Your task to perform on an android device: turn off priority inbox in the gmail app Image 0: 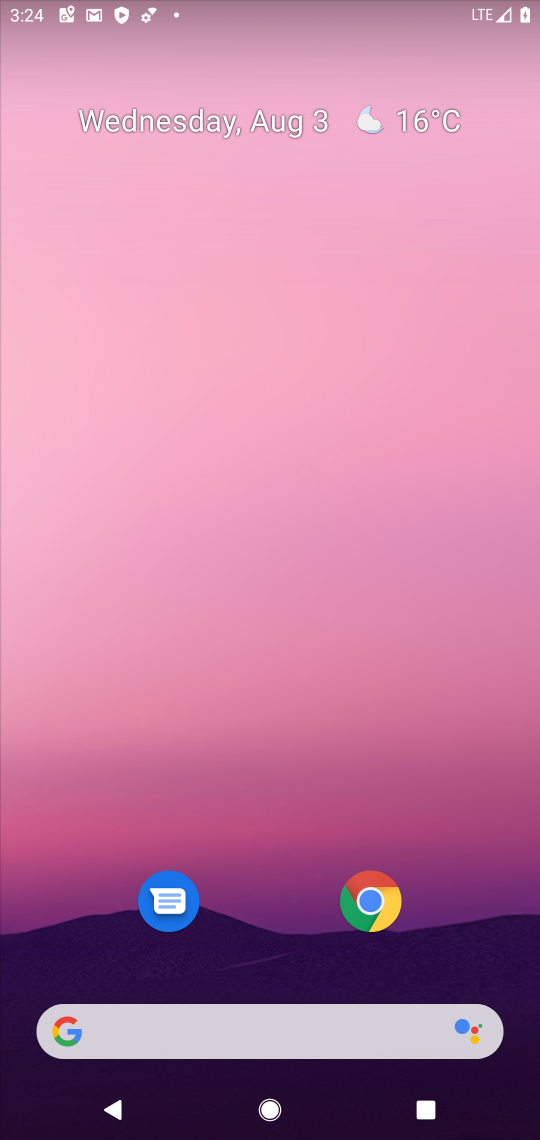
Step 0: drag from (305, 904) to (340, 96)
Your task to perform on an android device: turn off priority inbox in the gmail app Image 1: 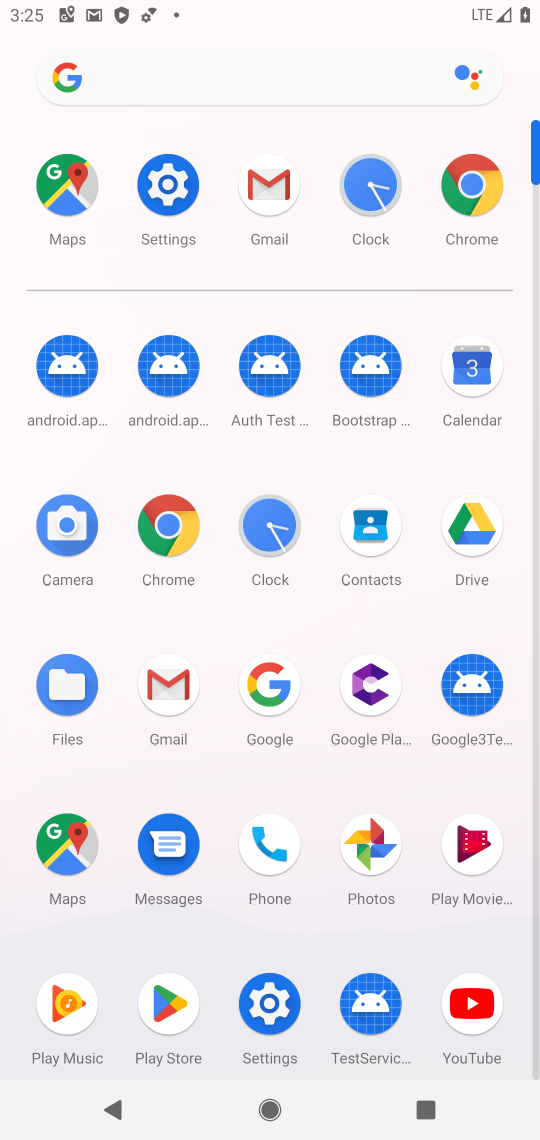
Step 1: click (158, 671)
Your task to perform on an android device: turn off priority inbox in the gmail app Image 2: 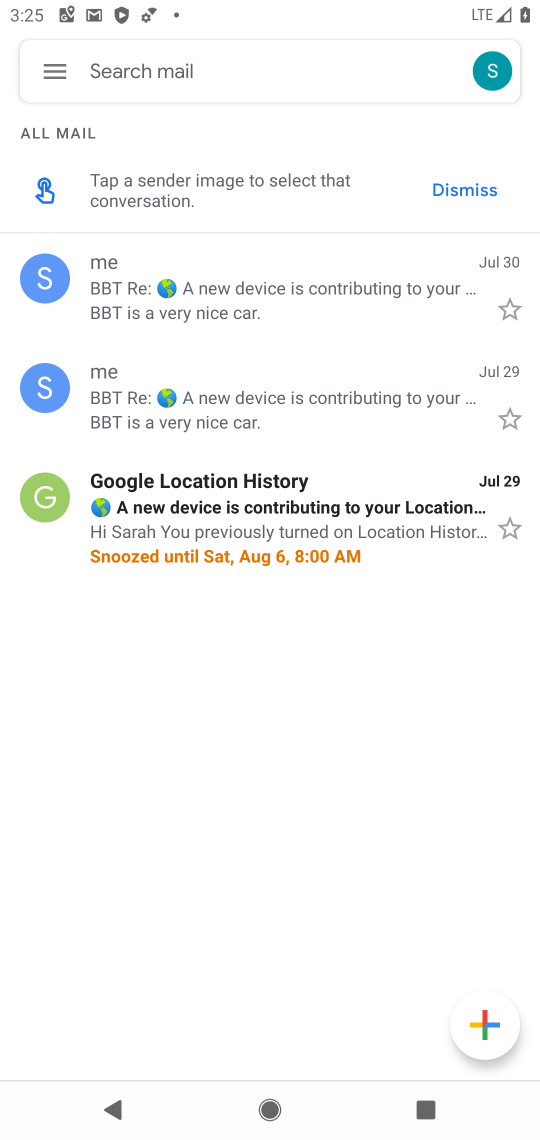
Step 2: click (41, 78)
Your task to perform on an android device: turn off priority inbox in the gmail app Image 3: 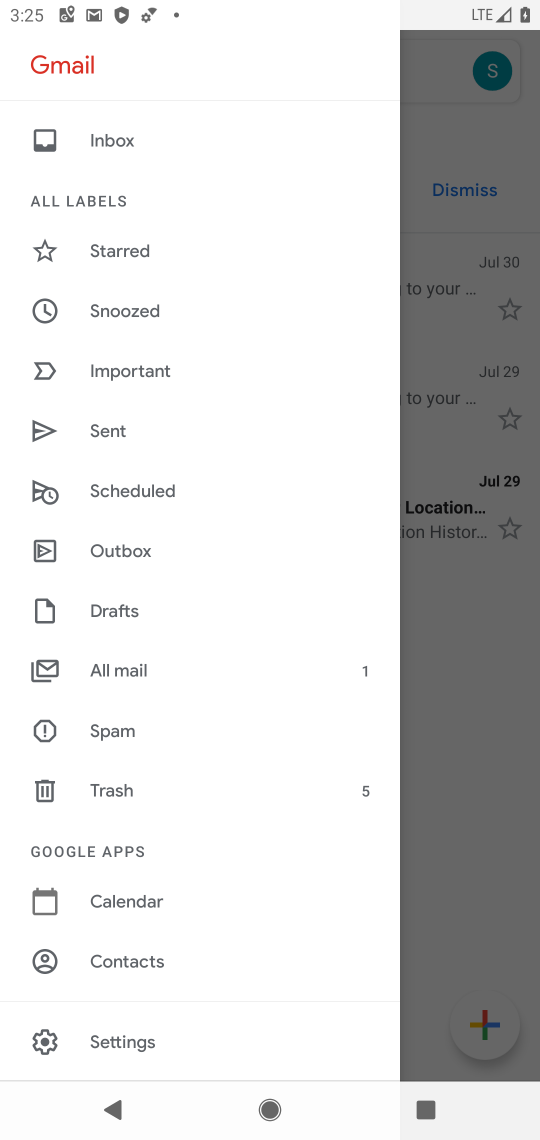
Step 3: click (111, 1038)
Your task to perform on an android device: turn off priority inbox in the gmail app Image 4: 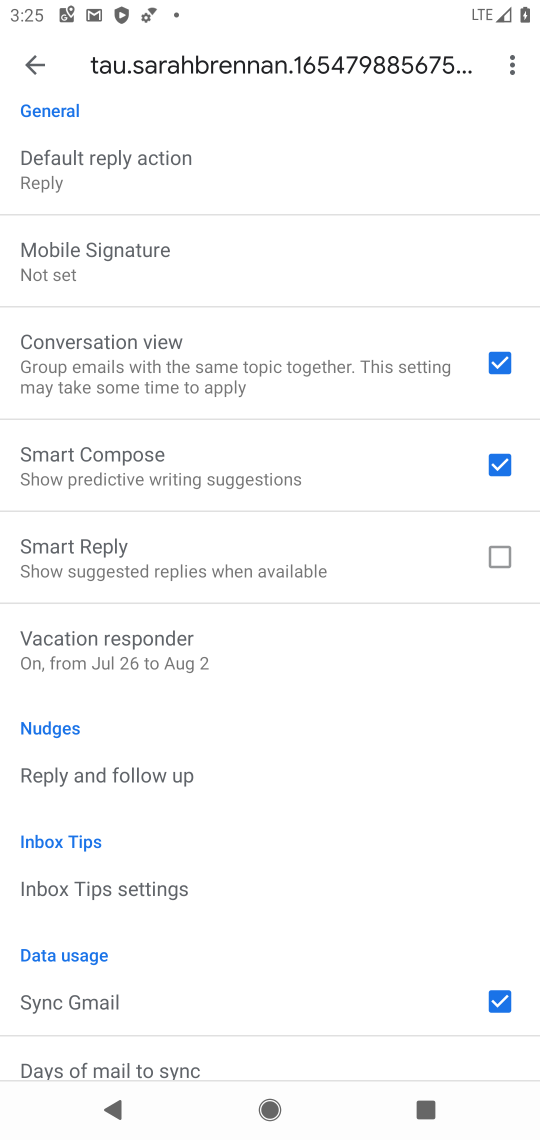
Step 4: drag from (133, 280) to (96, 815)
Your task to perform on an android device: turn off priority inbox in the gmail app Image 5: 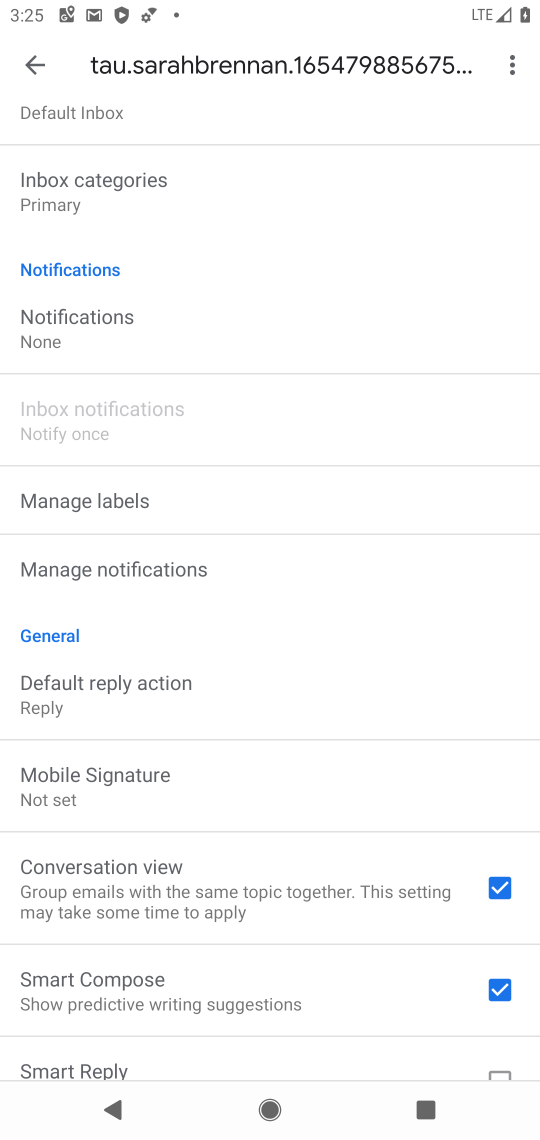
Step 5: click (81, 194)
Your task to perform on an android device: turn off priority inbox in the gmail app Image 6: 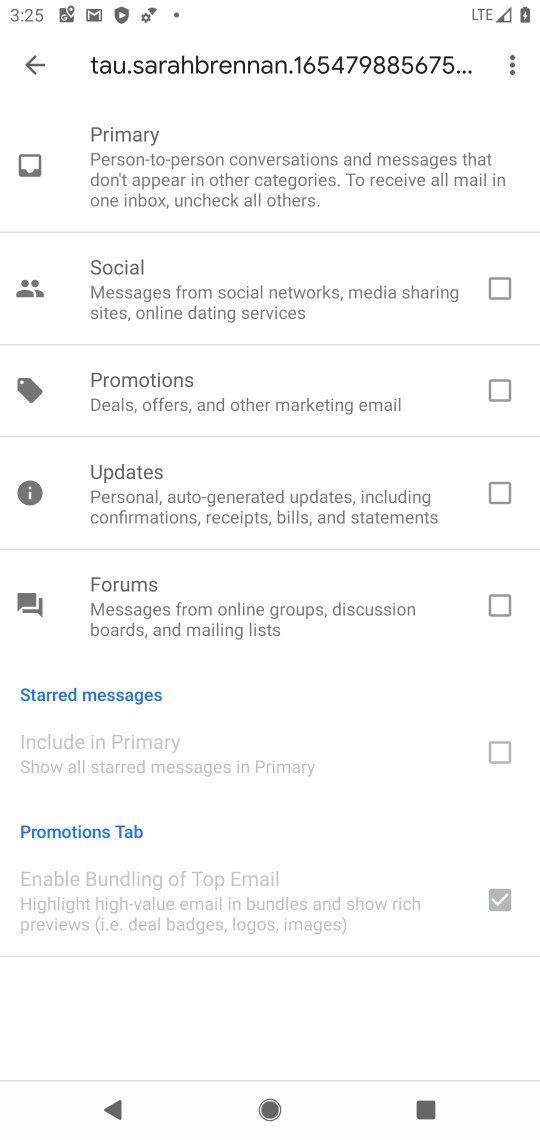
Step 6: click (54, 64)
Your task to perform on an android device: turn off priority inbox in the gmail app Image 7: 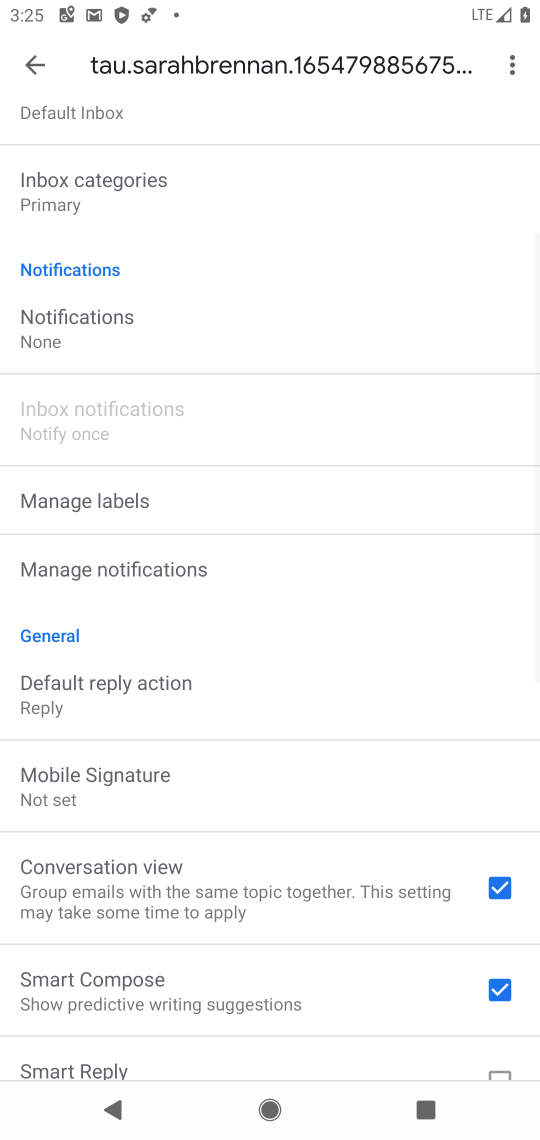
Step 7: click (116, 187)
Your task to perform on an android device: turn off priority inbox in the gmail app Image 8: 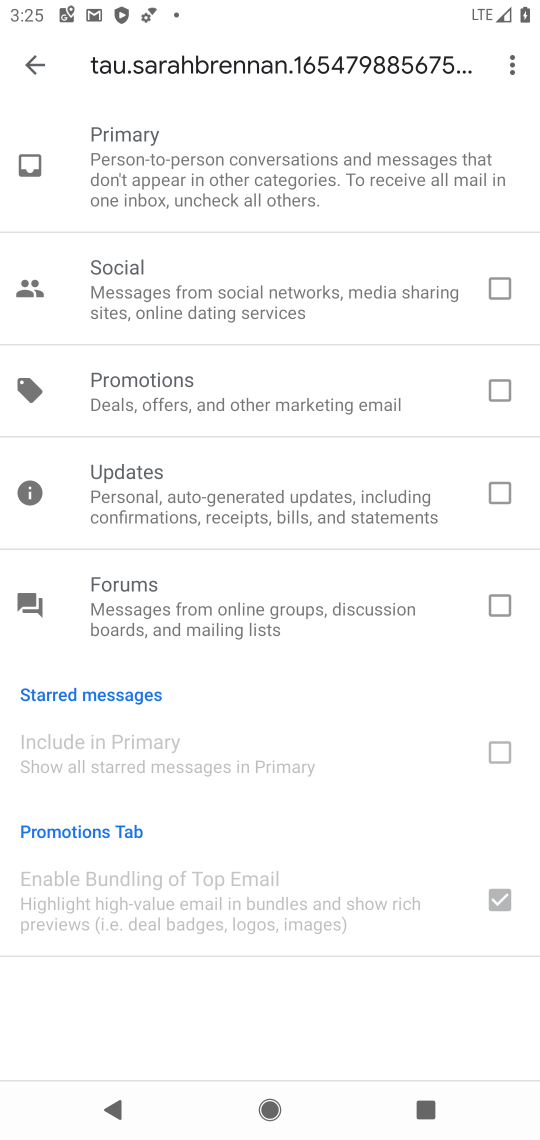
Step 8: click (59, 52)
Your task to perform on an android device: turn off priority inbox in the gmail app Image 9: 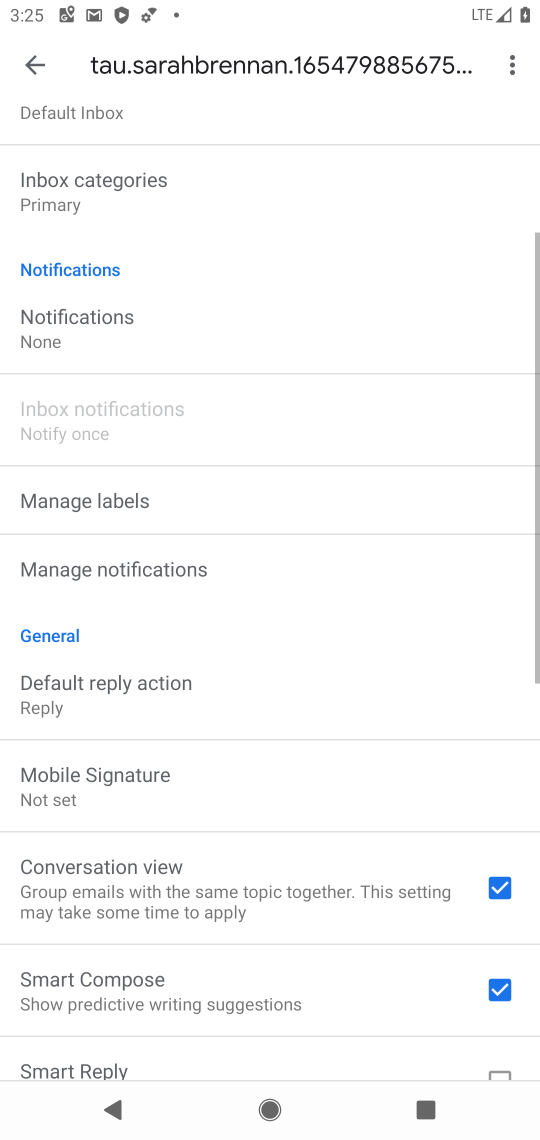
Step 9: click (59, 52)
Your task to perform on an android device: turn off priority inbox in the gmail app Image 10: 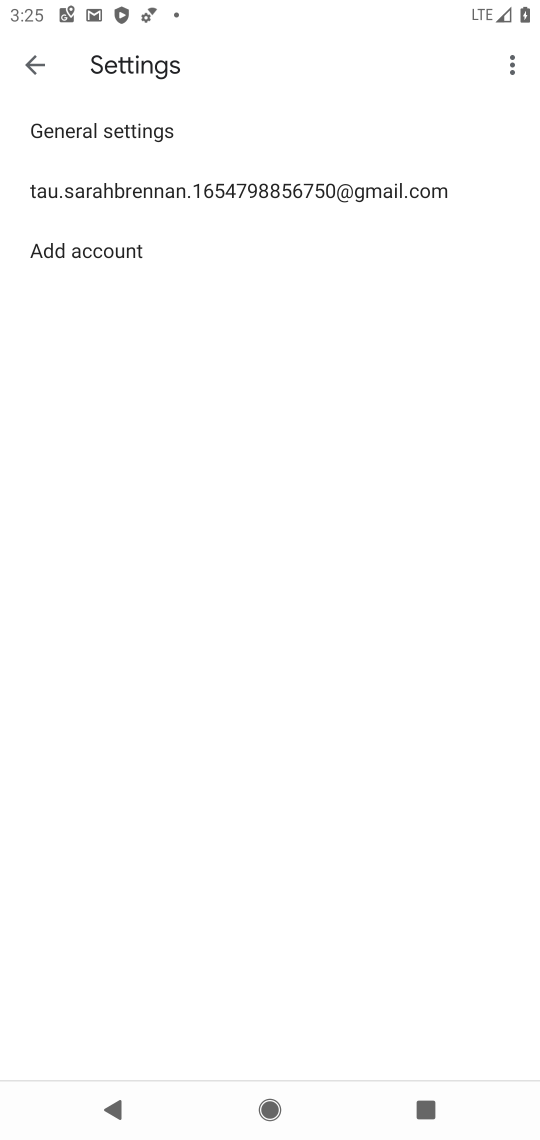
Step 10: click (71, 140)
Your task to perform on an android device: turn off priority inbox in the gmail app Image 11: 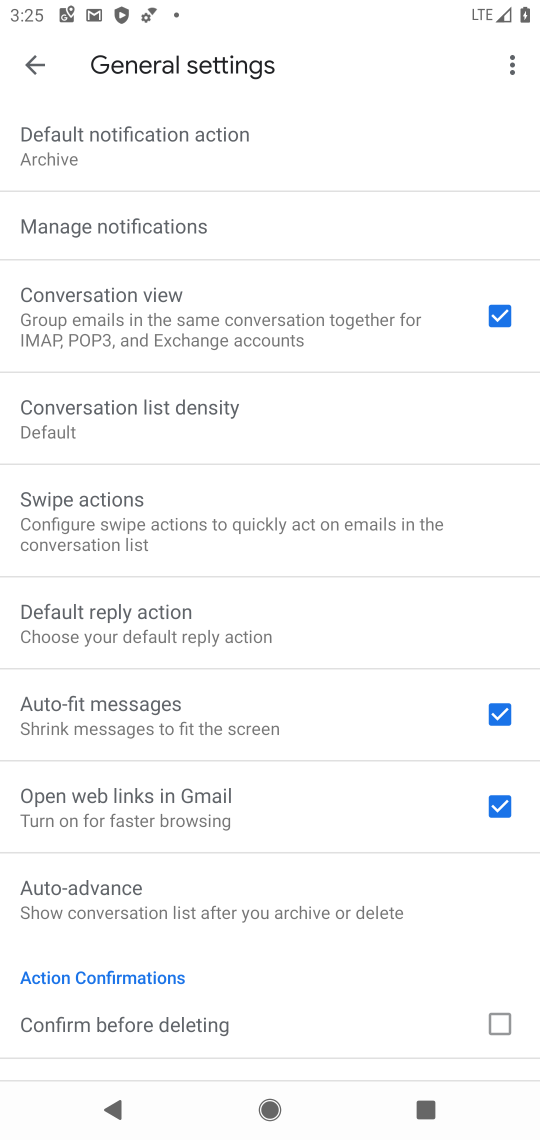
Step 11: click (50, 59)
Your task to perform on an android device: turn off priority inbox in the gmail app Image 12: 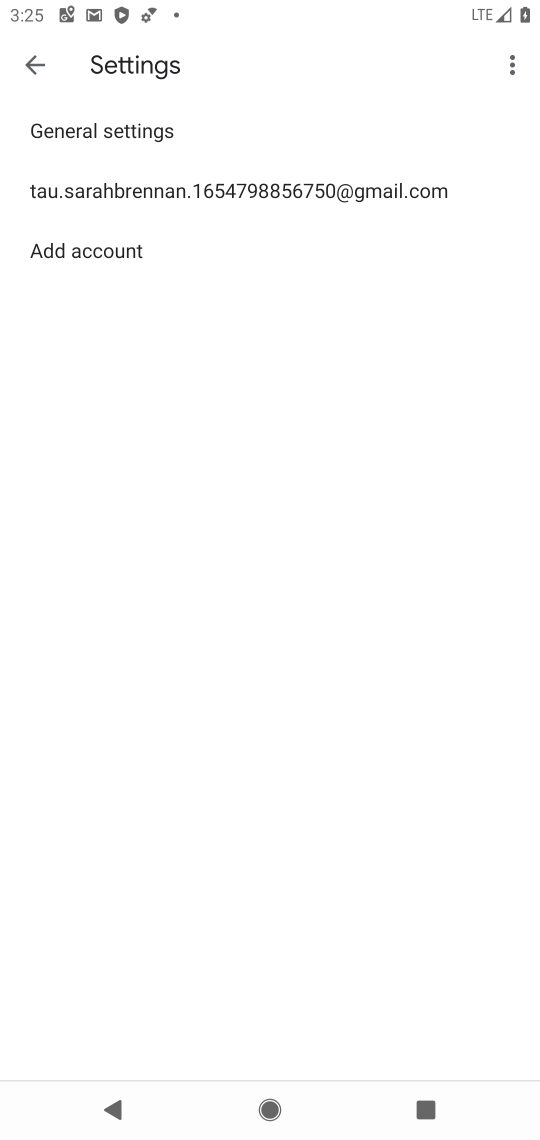
Step 12: click (142, 198)
Your task to perform on an android device: turn off priority inbox in the gmail app Image 13: 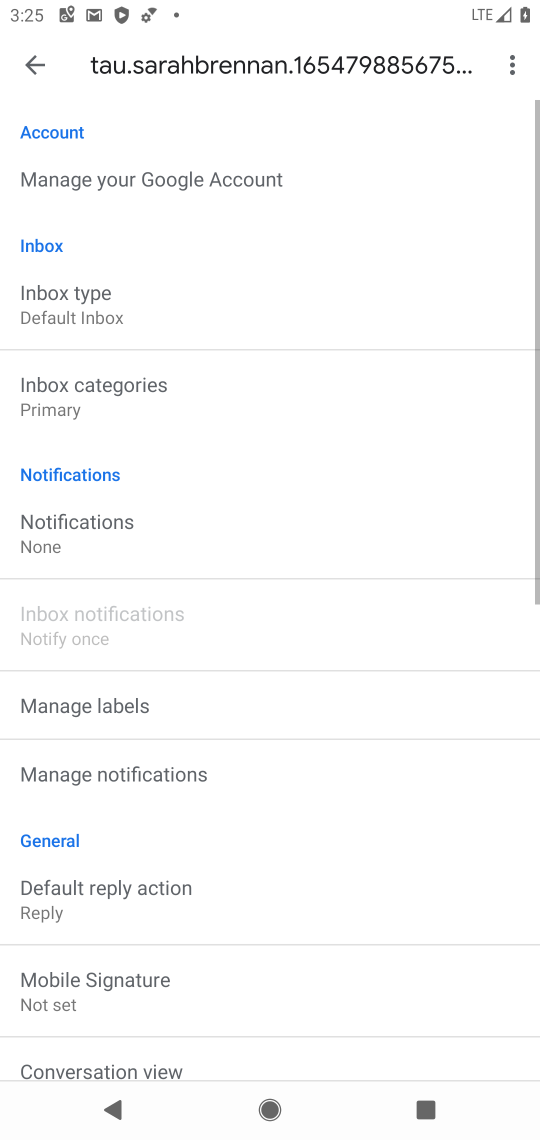
Step 13: click (122, 297)
Your task to perform on an android device: turn off priority inbox in the gmail app Image 14: 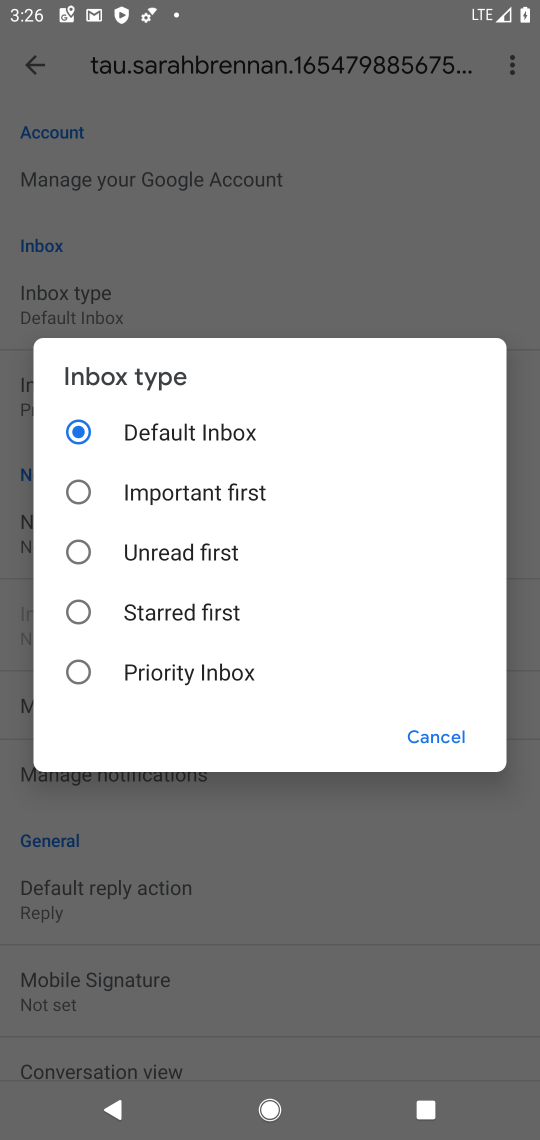
Step 14: task complete